Your task to perform on an android device: Open display settings Image 0: 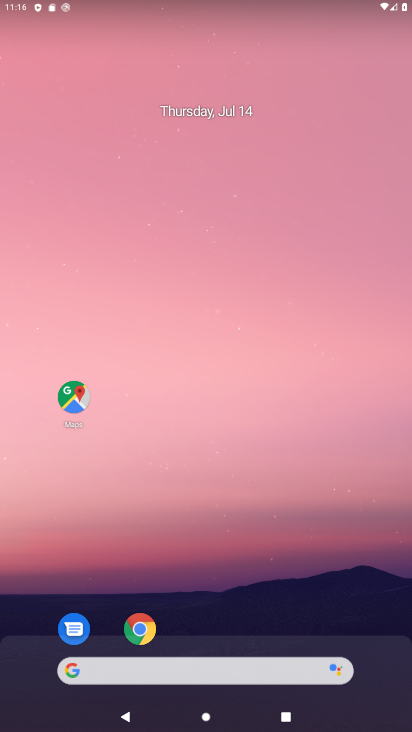
Step 0: drag from (317, 557) to (2, 188)
Your task to perform on an android device: Open display settings Image 1: 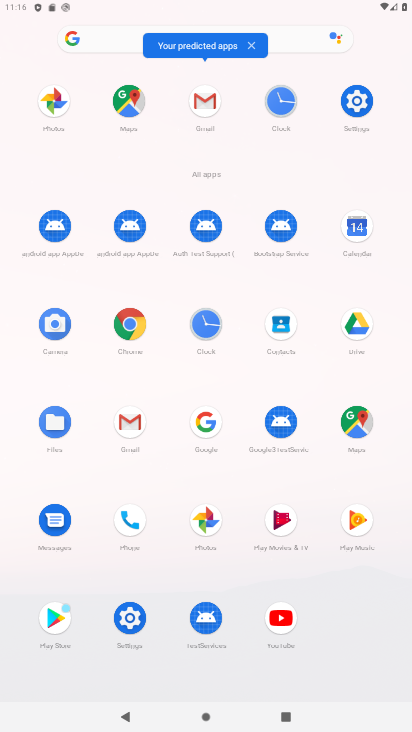
Step 1: click (347, 90)
Your task to perform on an android device: Open display settings Image 2: 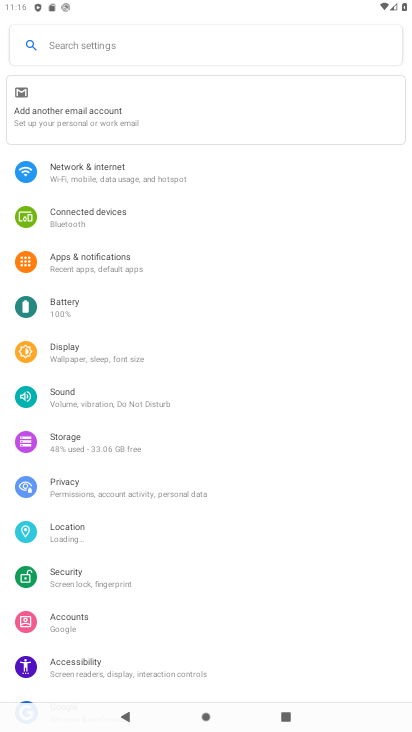
Step 2: click (66, 354)
Your task to perform on an android device: Open display settings Image 3: 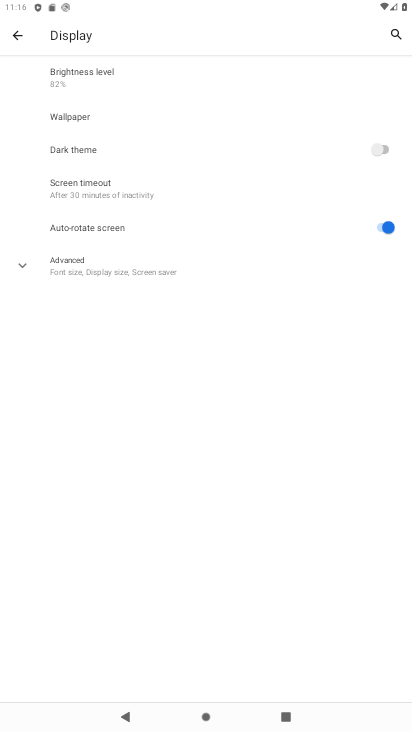
Step 3: task complete